Your task to perform on an android device: turn pop-ups off in chrome Image 0: 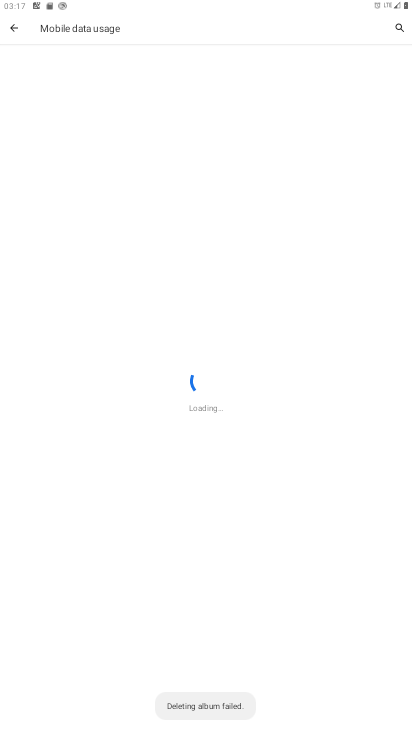
Step 0: press home button
Your task to perform on an android device: turn pop-ups off in chrome Image 1: 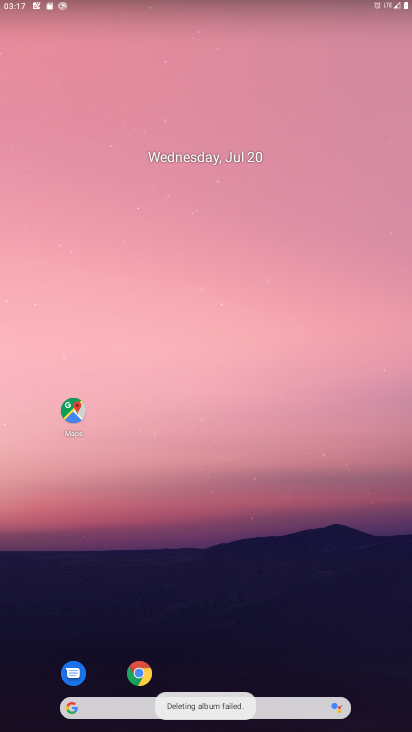
Step 1: click (144, 673)
Your task to perform on an android device: turn pop-ups off in chrome Image 2: 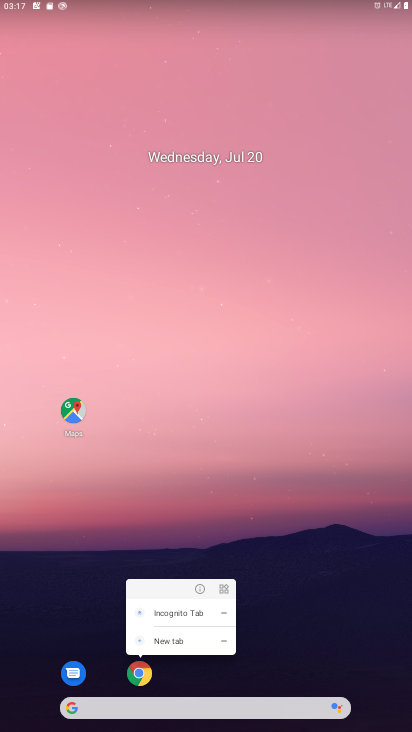
Step 2: click (134, 675)
Your task to perform on an android device: turn pop-ups off in chrome Image 3: 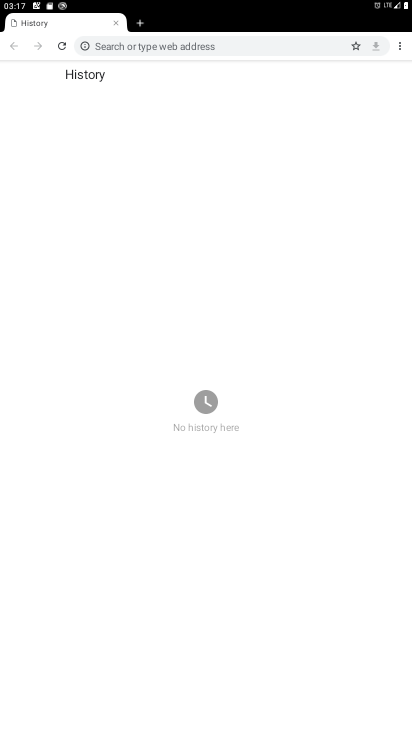
Step 3: click (401, 42)
Your task to perform on an android device: turn pop-ups off in chrome Image 4: 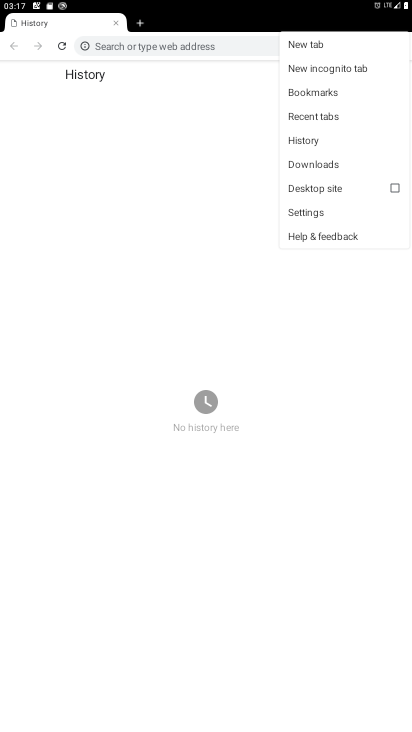
Step 4: click (303, 207)
Your task to perform on an android device: turn pop-ups off in chrome Image 5: 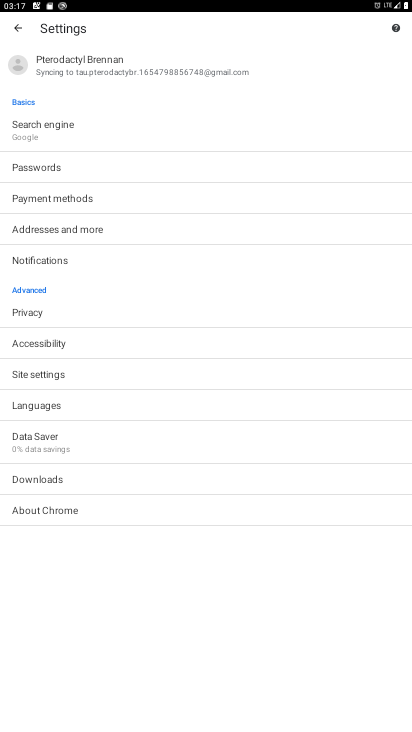
Step 5: click (53, 371)
Your task to perform on an android device: turn pop-ups off in chrome Image 6: 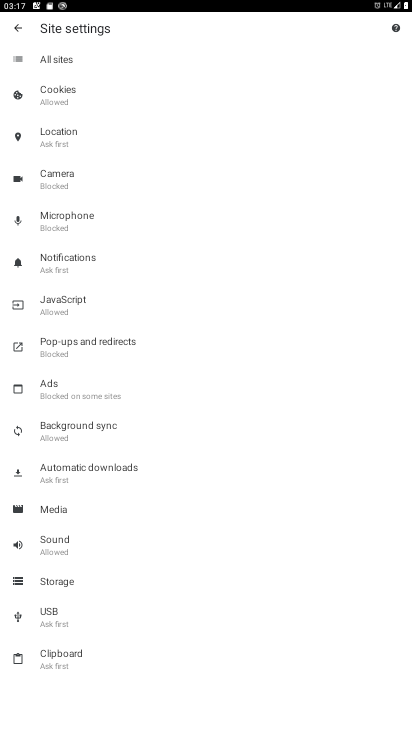
Step 6: click (64, 340)
Your task to perform on an android device: turn pop-ups off in chrome Image 7: 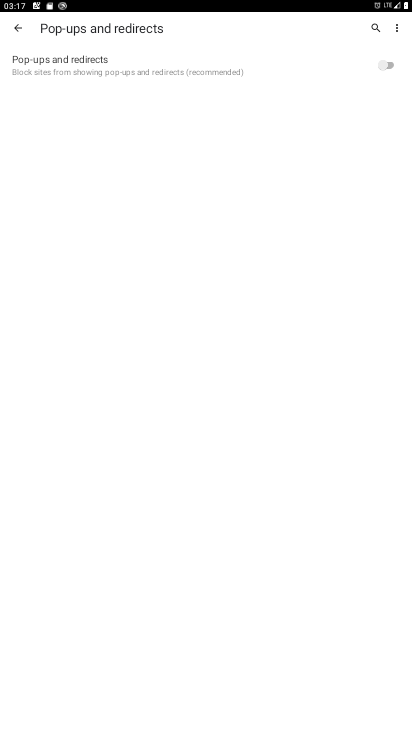
Step 7: click (367, 64)
Your task to perform on an android device: turn pop-ups off in chrome Image 8: 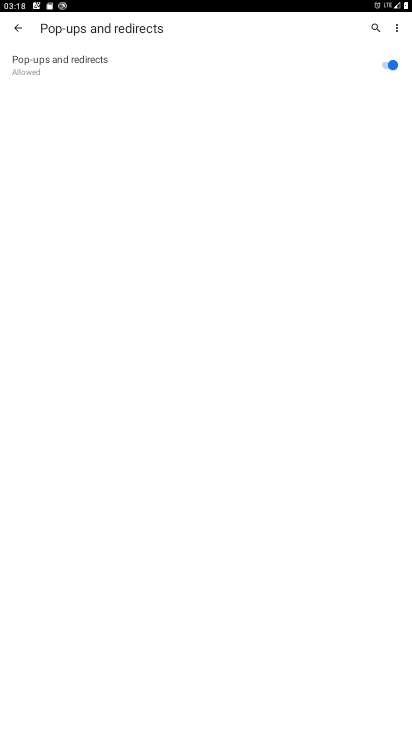
Step 8: task complete